Your task to perform on an android device: open sync settings in chrome Image 0: 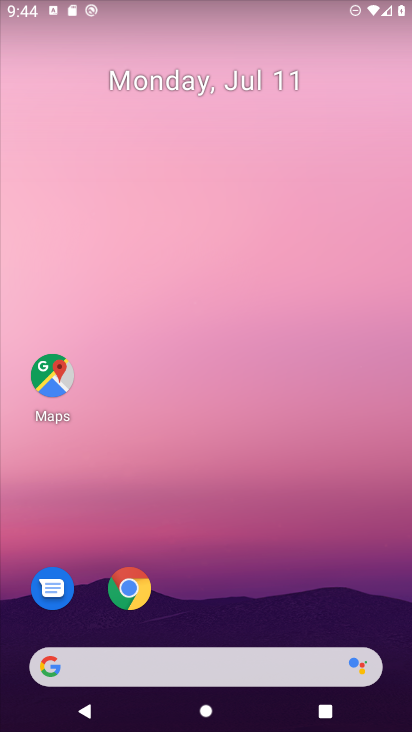
Step 0: drag from (395, 643) to (166, 44)
Your task to perform on an android device: open sync settings in chrome Image 1: 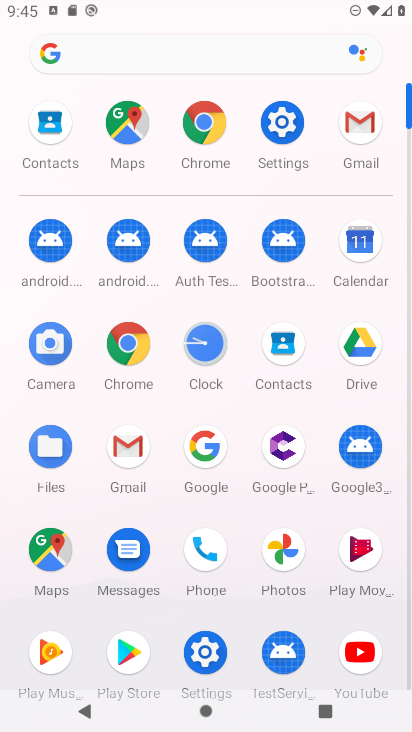
Step 1: click (211, 142)
Your task to perform on an android device: open sync settings in chrome Image 2: 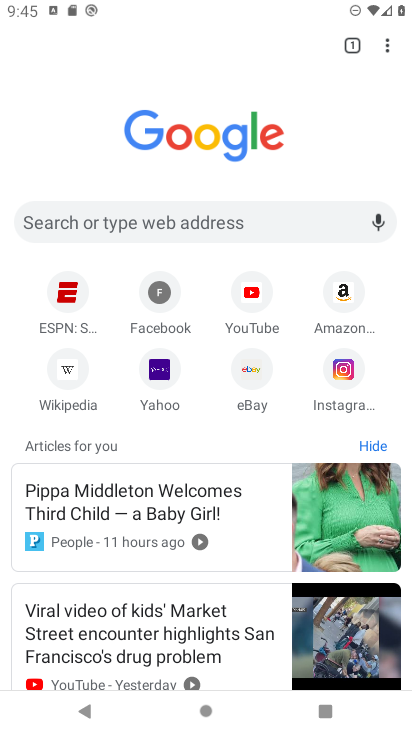
Step 2: click (383, 50)
Your task to perform on an android device: open sync settings in chrome Image 3: 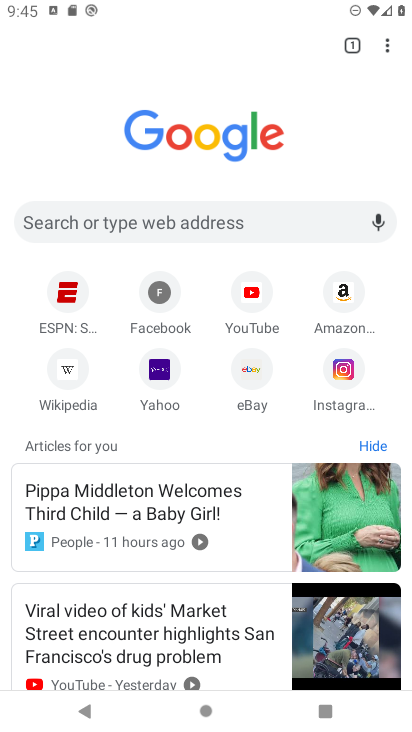
Step 3: click (391, 38)
Your task to perform on an android device: open sync settings in chrome Image 4: 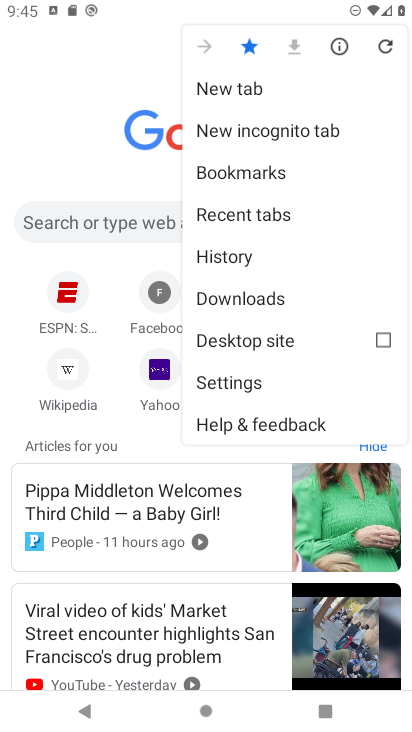
Step 4: click (238, 382)
Your task to perform on an android device: open sync settings in chrome Image 5: 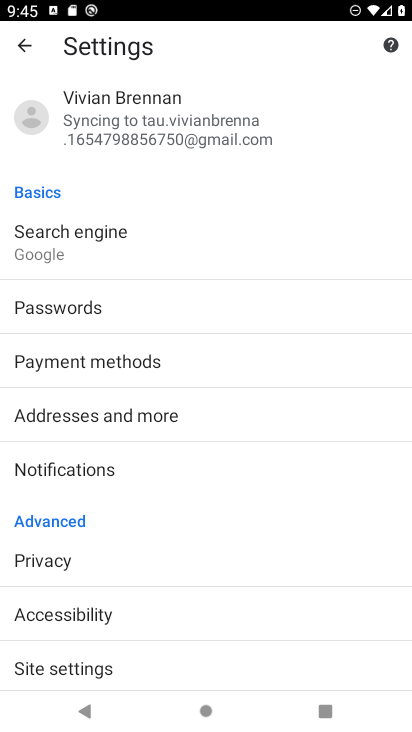
Step 5: click (114, 673)
Your task to perform on an android device: open sync settings in chrome Image 6: 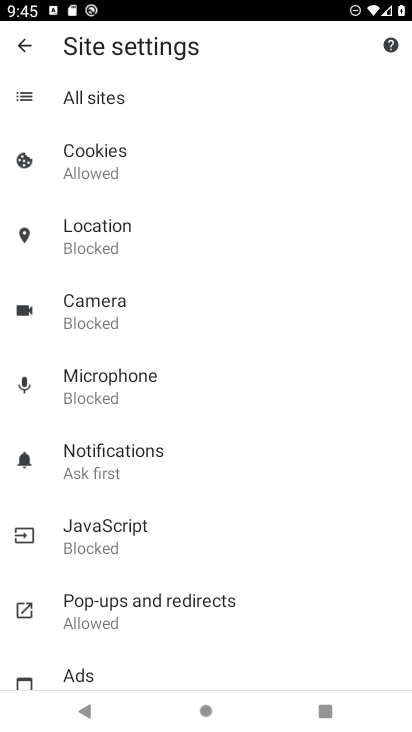
Step 6: drag from (101, 609) to (112, 269)
Your task to perform on an android device: open sync settings in chrome Image 7: 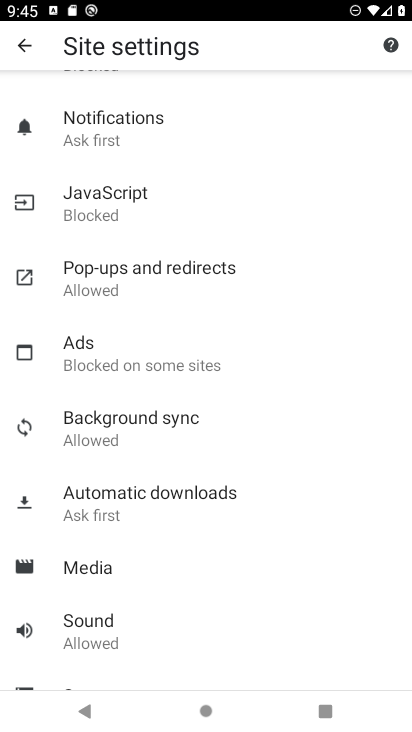
Step 7: click (109, 439)
Your task to perform on an android device: open sync settings in chrome Image 8: 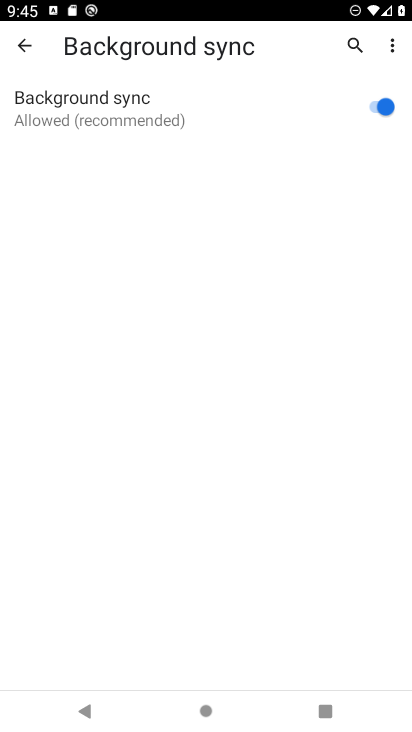
Step 8: task complete